Your task to perform on an android device: turn on the 24-hour format for clock Image 0: 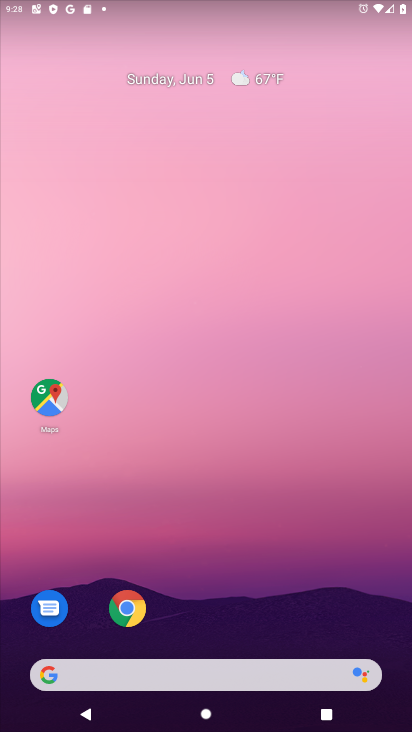
Step 0: press home button
Your task to perform on an android device: turn on the 24-hour format for clock Image 1: 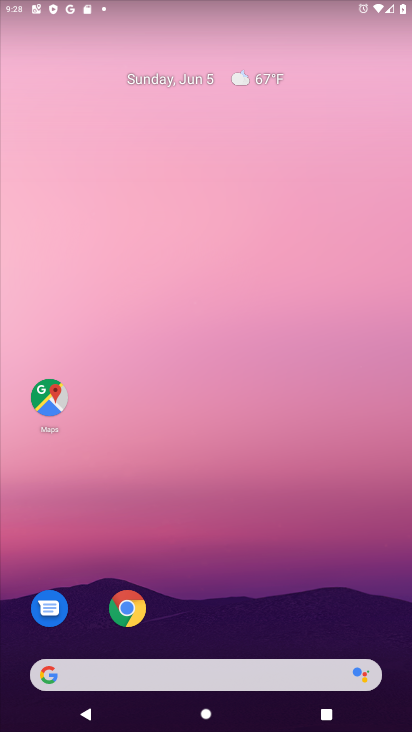
Step 1: drag from (55, 552) to (281, 143)
Your task to perform on an android device: turn on the 24-hour format for clock Image 2: 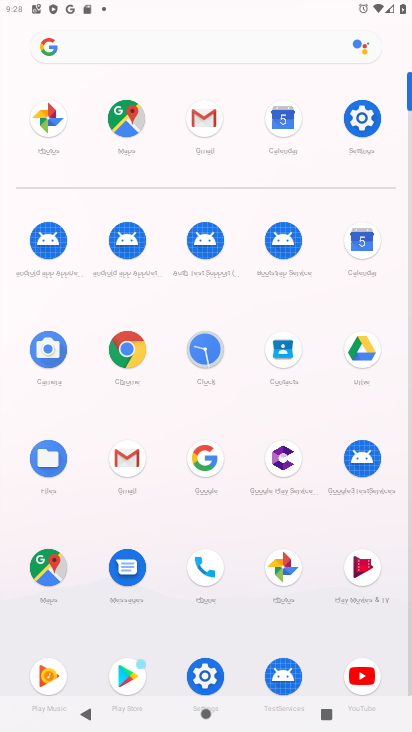
Step 2: click (215, 348)
Your task to perform on an android device: turn on the 24-hour format for clock Image 3: 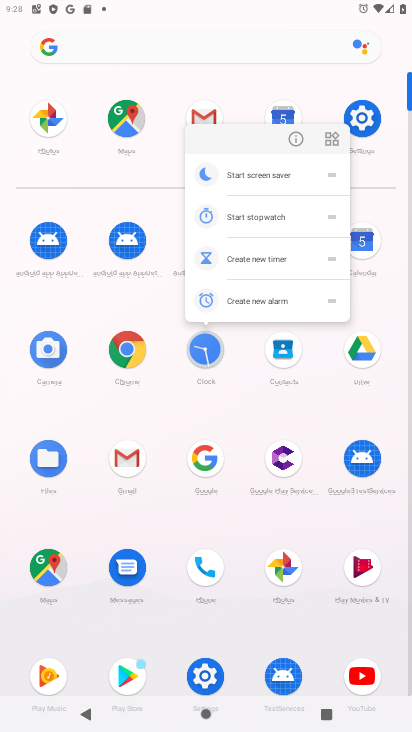
Step 3: click (213, 344)
Your task to perform on an android device: turn on the 24-hour format for clock Image 4: 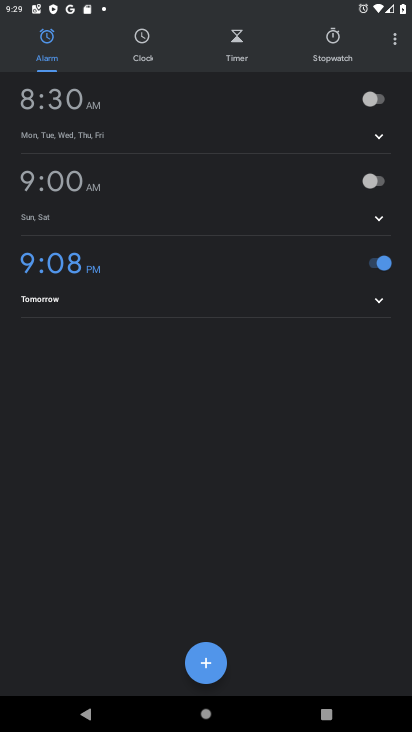
Step 4: click (398, 47)
Your task to perform on an android device: turn on the 24-hour format for clock Image 5: 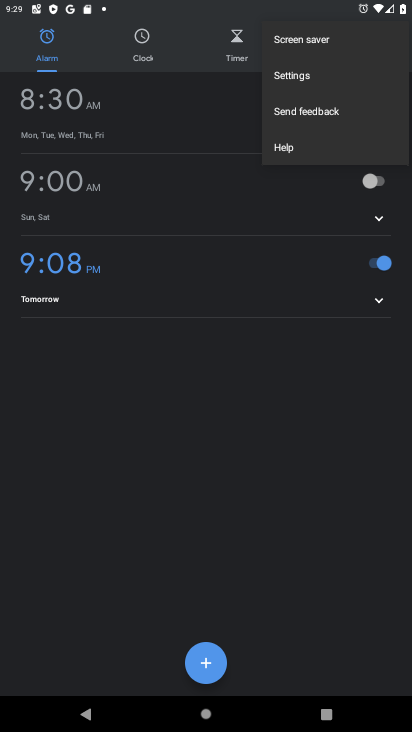
Step 5: click (303, 84)
Your task to perform on an android device: turn on the 24-hour format for clock Image 6: 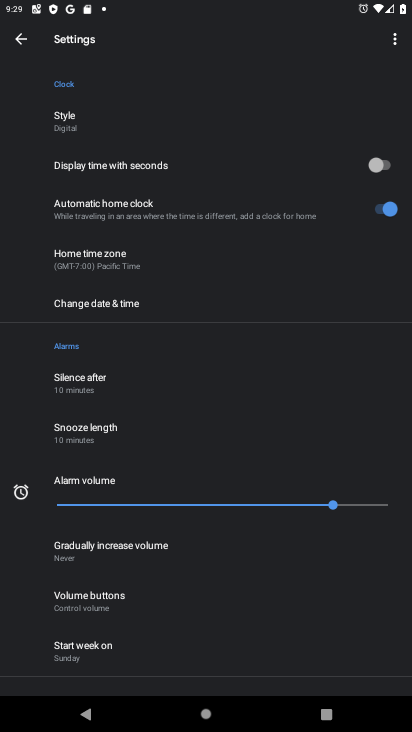
Step 6: click (100, 306)
Your task to perform on an android device: turn on the 24-hour format for clock Image 7: 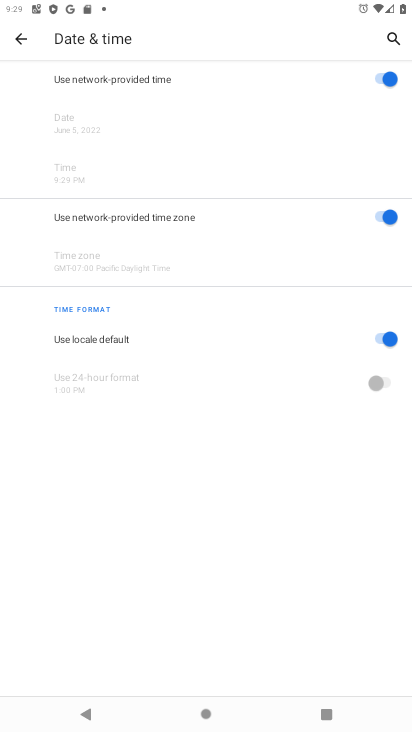
Step 7: click (393, 332)
Your task to perform on an android device: turn on the 24-hour format for clock Image 8: 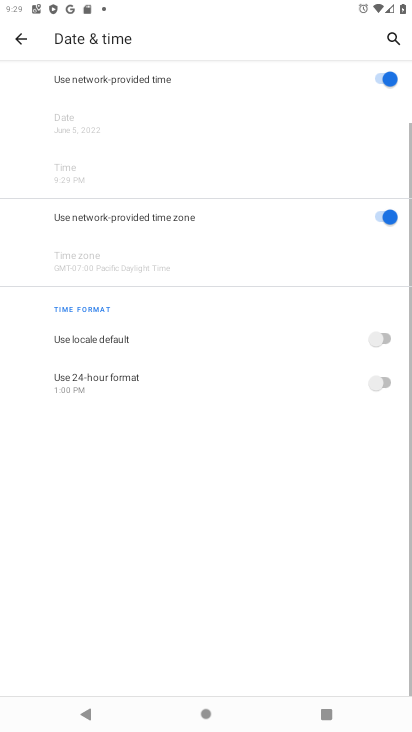
Step 8: click (379, 388)
Your task to perform on an android device: turn on the 24-hour format for clock Image 9: 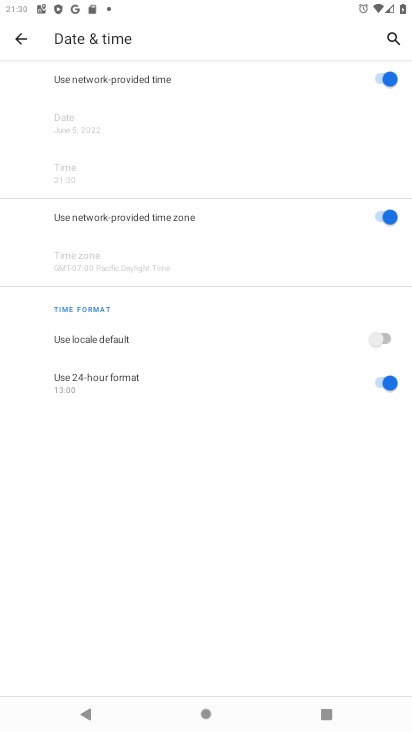
Step 9: task complete